Your task to perform on an android device: Open privacy settings Image 0: 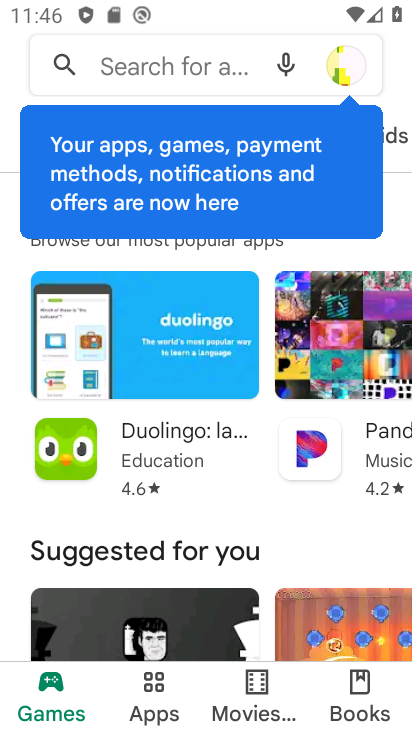
Step 0: press back button
Your task to perform on an android device: Open privacy settings Image 1: 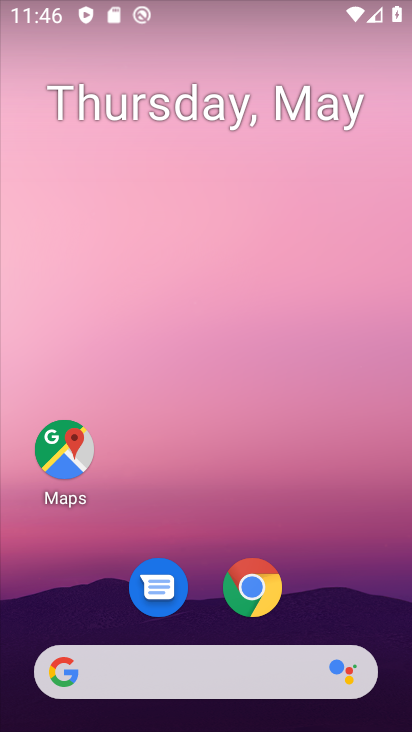
Step 1: drag from (187, 582) to (275, 56)
Your task to perform on an android device: Open privacy settings Image 2: 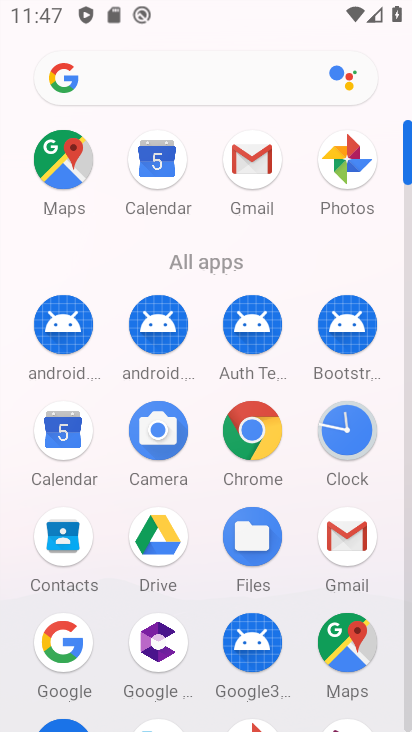
Step 2: drag from (214, 673) to (300, 65)
Your task to perform on an android device: Open privacy settings Image 3: 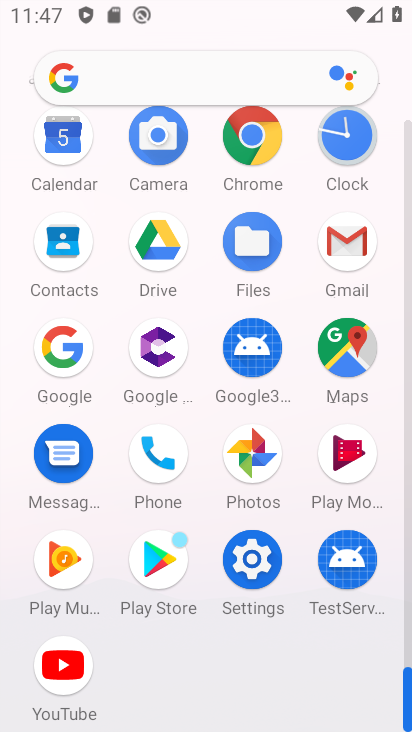
Step 3: click (245, 566)
Your task to perform on an android device: Open privacy settings Image 4: 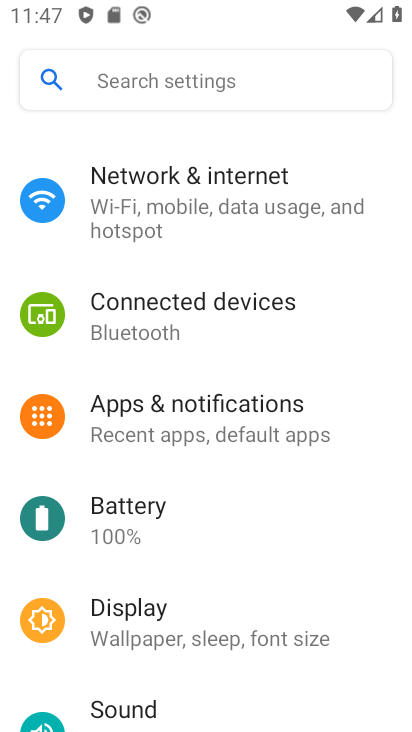
Step 4: drag from (194, 616) to (275, 69)
Your task to perform on an android device: Open privacy settings Image 5: 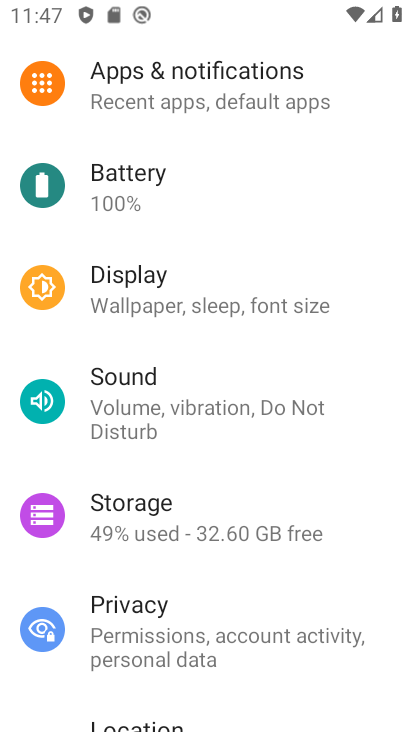
Step 5: click (128, 618)
Your task to perform on an android device: Open privacy settings Image 6: 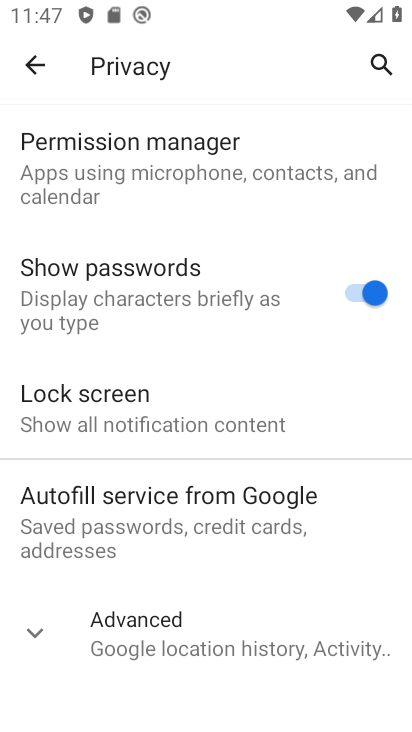
Step 6: task complete